Your task to perform on an android device: toggle airplane mode Image 0: 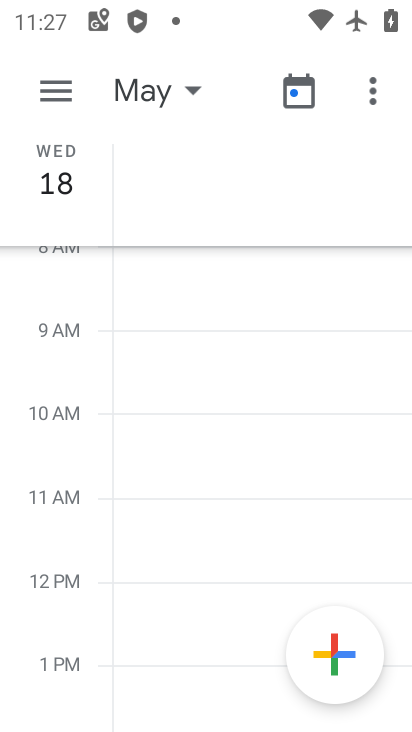
Step 0: press home button
Your task to perform on an android device: toggle airplane mode Image 1: 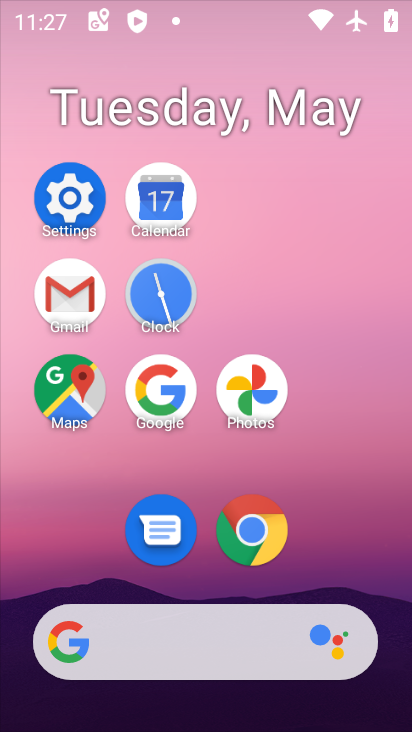
Step 1: click (78, 183)
Your task to perform on an android device: toggle airplane mode Image 2: 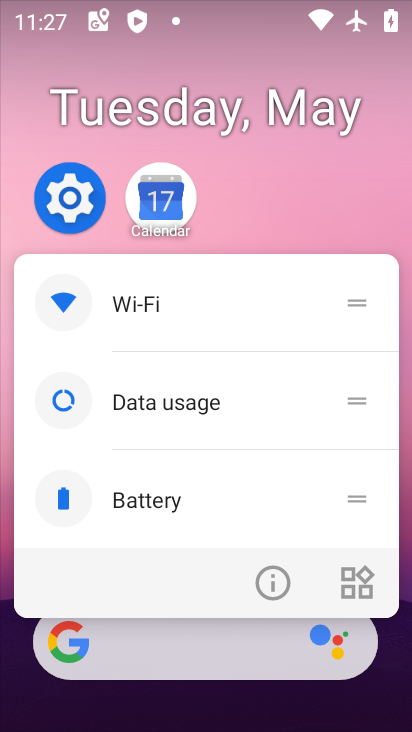
Step 2: click (84, 224)
Your task to perform on an android device: toggle airplane mode Image 3: 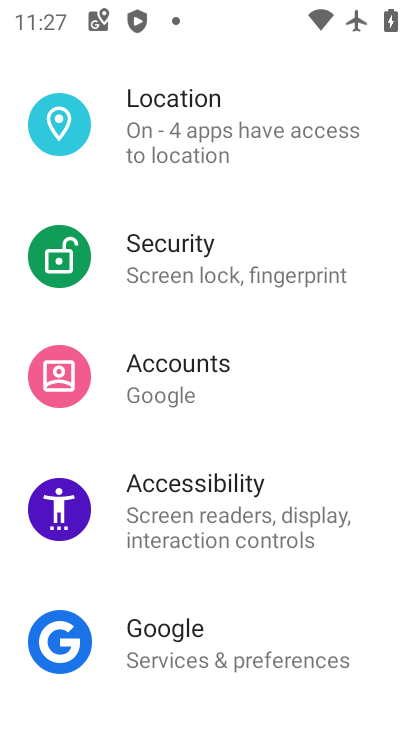
Step 3: drag from (280, 158) to (269, 565)
Your task to perform on an android device: toggle airplane mode Image 4: 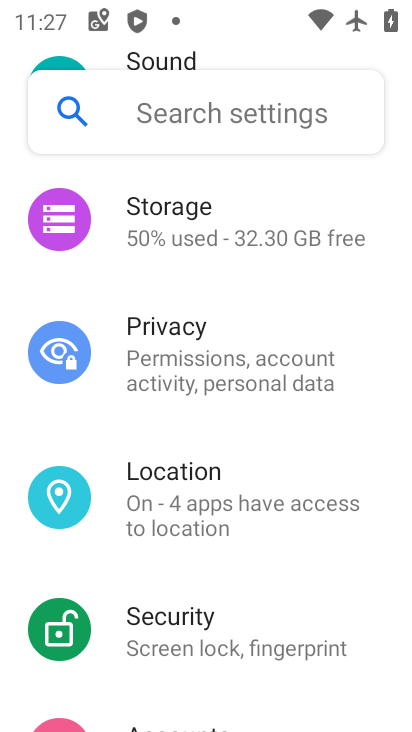
Step 4: drag from (299, 205) to (293, 571)
Your task to perform on an android device: toggle airplane mode Image 5: 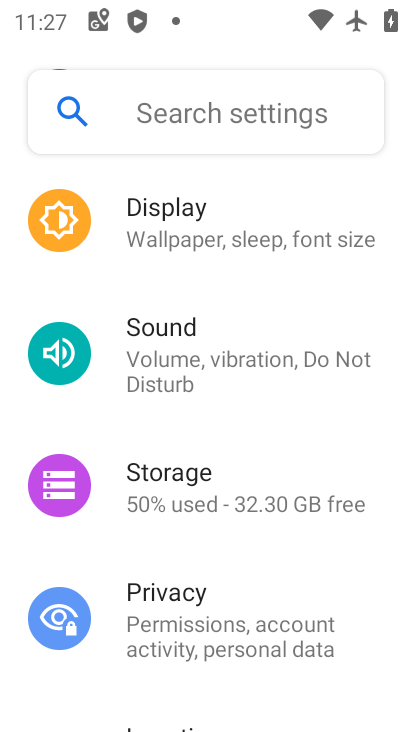
Step 5: drag from (306, 264) to (294, 558)
Your task to perform on an android device: toggle airplane mode Image 6: 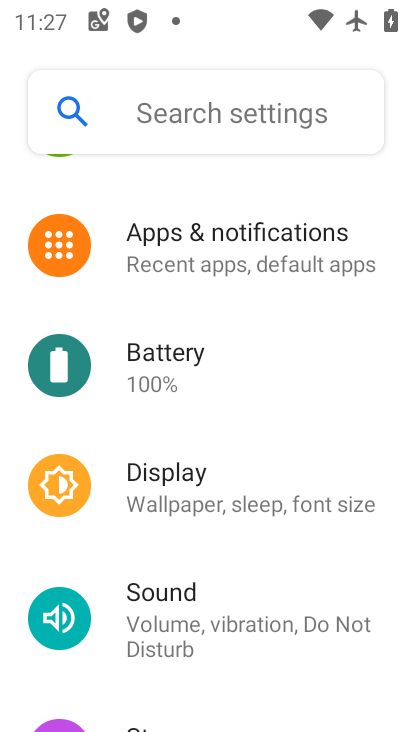
Step 6: drag from (326, 278) to (283, 543)
Your task to perform on an android device: toggle airplane mode Image 7: 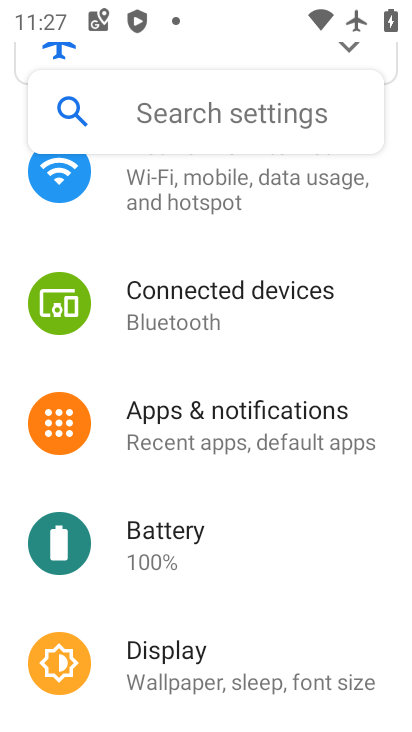
Step 7: click (247, 201)
Your task to perform on an android device: toggle airplane mode Image 8: 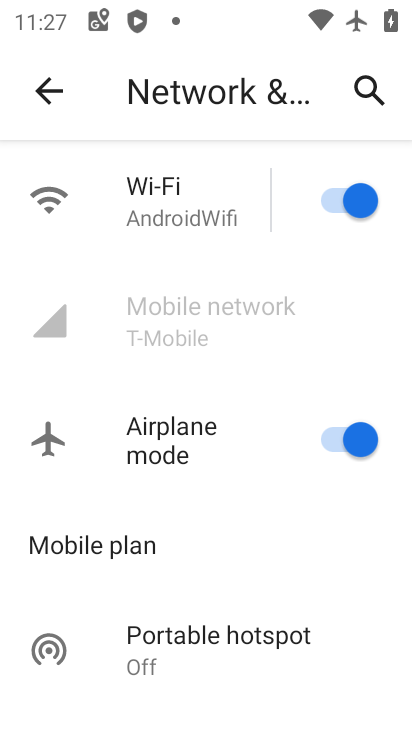
Step 8: click (344, 434)
Your task to perform on an android device: toggle airplane mode Image 9: 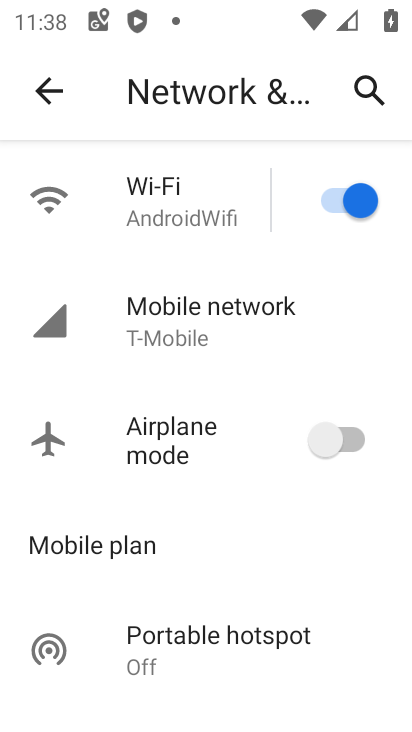
Step 9: task complete